Your task to perform on an android device: Open Google Image 0: 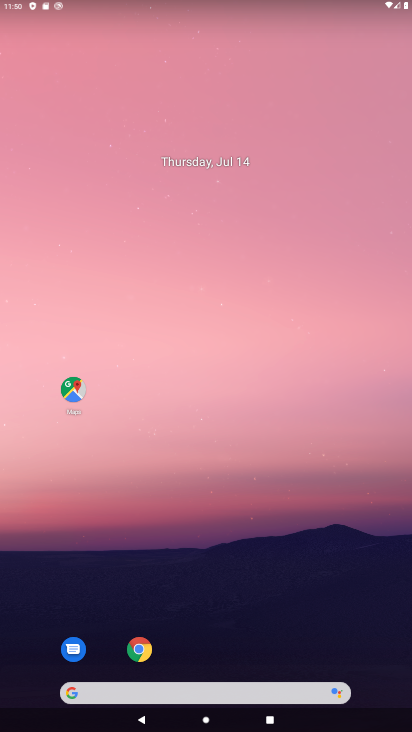
Step 0: drag from (245, 666) to (273, 5)
Your task to perform on an android device: Open Google Image 1: 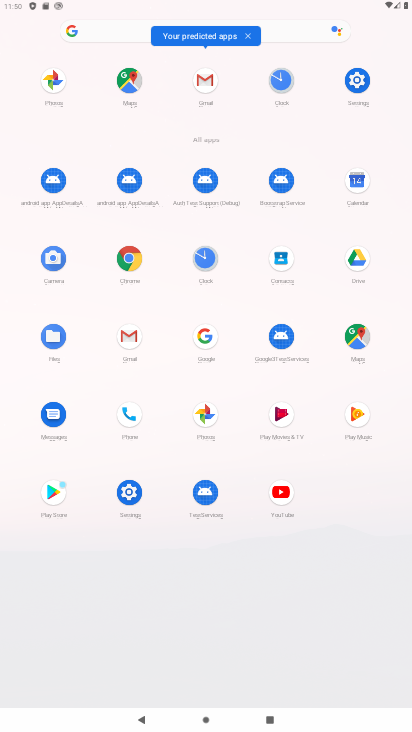
Step 1: click (202, 340)
Your task to perform on an android device: Open Google Image 2: 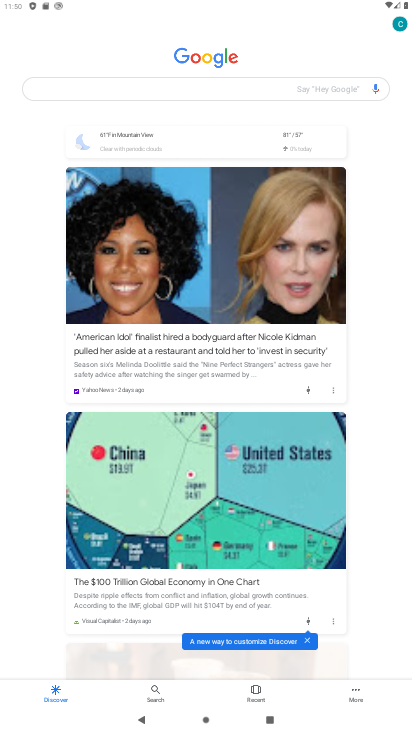
Step 2: task complete